Your task to perform on an android device: Open ESPN.com Image 0: 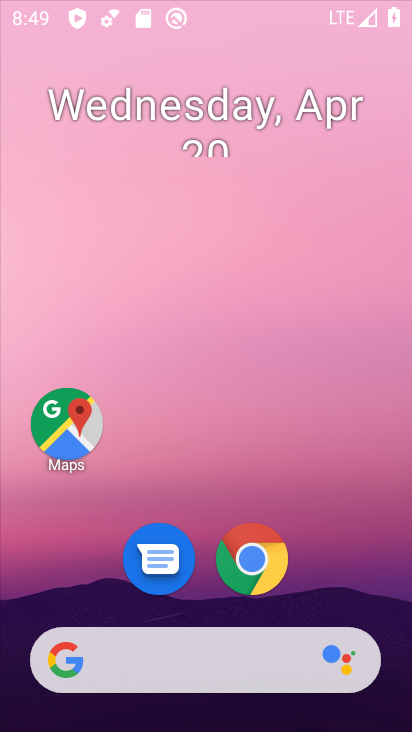
Step 0: press home button
Your task to perform on an android device: Open ESPN.com Image 1: 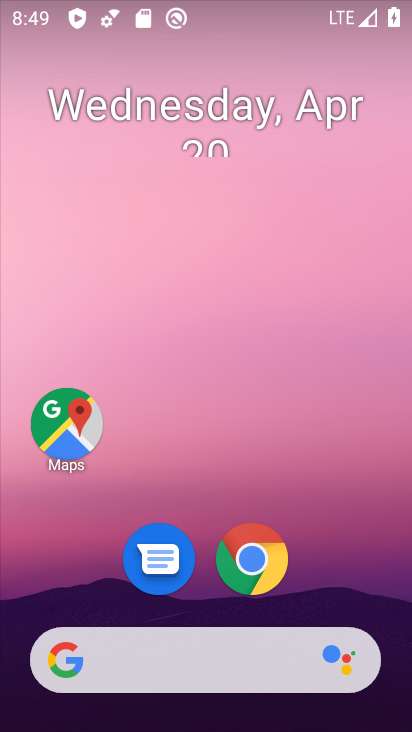
Step 1: click (237, 550)
Your task to perform on an android device: Open ESPN.com Image 2: 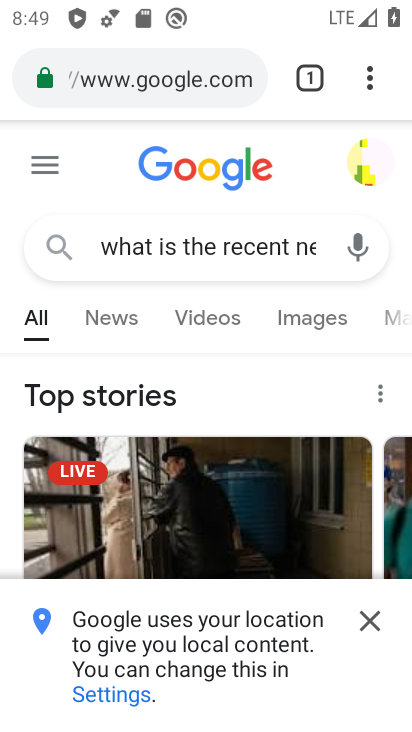
Step 2: click (113, 78)
Your task to perform on an android device: Open ESPN.com Image 3: 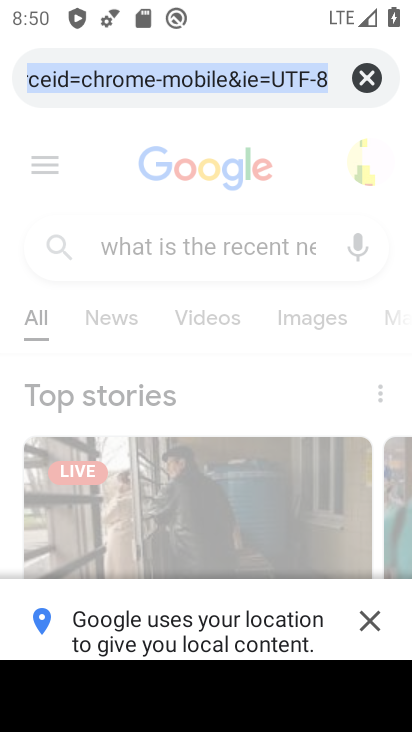
Step 3: type "ESPN.com"
Your task to perform on an android device: Open ESPN.com Image 4: 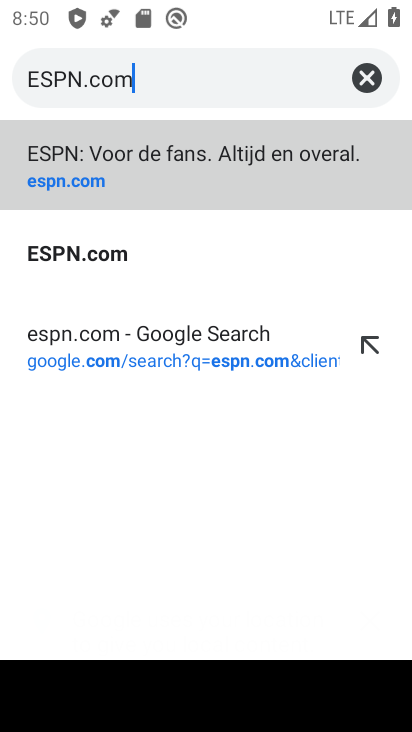
Step 4: click (41, 182)
Your task to perform on an android device: Open ESPN.com Image 5: 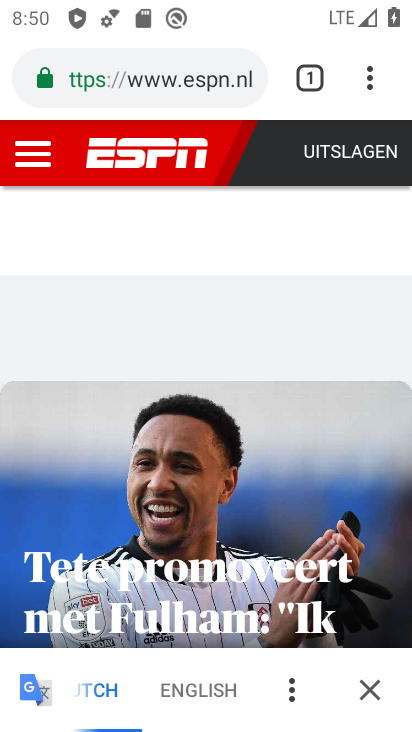
Step 5: task complete